Your task to perform on an android device: turn pop-ups off in chrome Image 0: 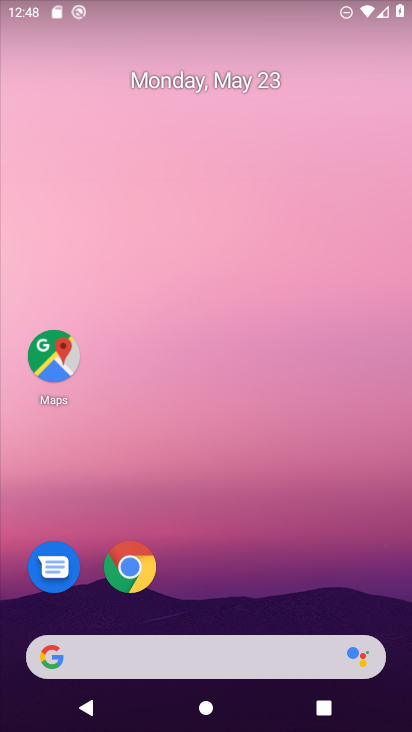
Step 0: click (121, 578)
Your task to perform on an android device: turn pop-ups off in chrome Image 1: 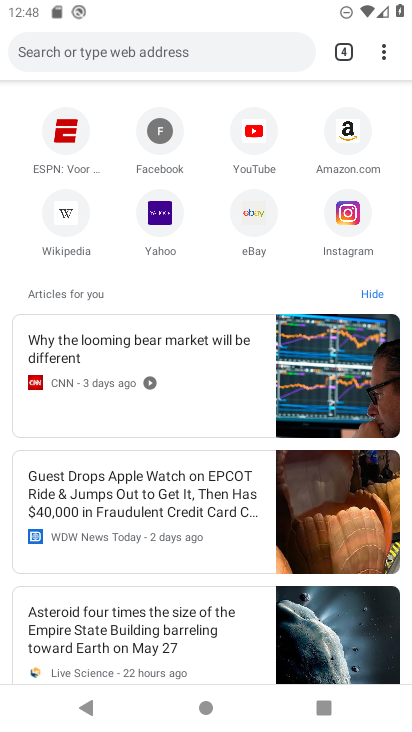
Step 1: click (396, 48)
Your task to perform on an android device: turn pop-ups off in chrome Image 2: 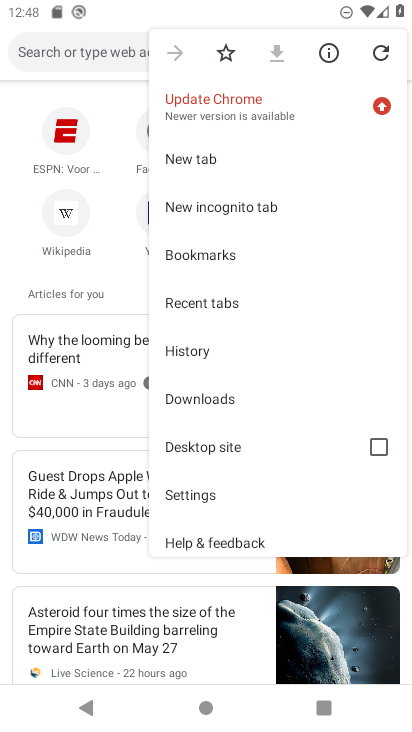
Step 2: click (204, 498)
Your task to perform on an android device: turn pop-ups off in chrome Image 3: 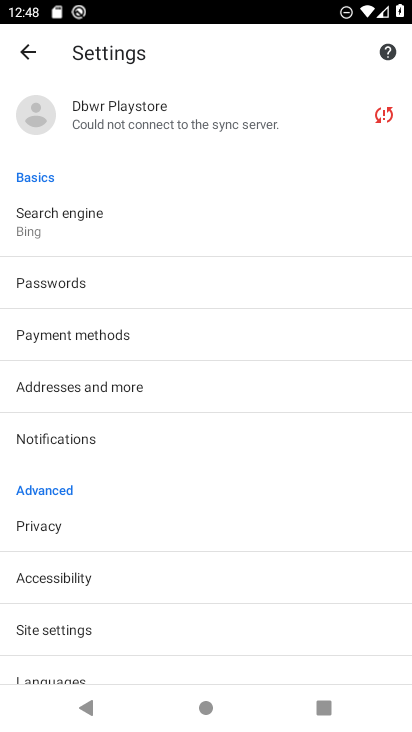
Step 3: click (119, 633)
Your task to perform on an android device: turn pop-ups off in chrome Image 4: 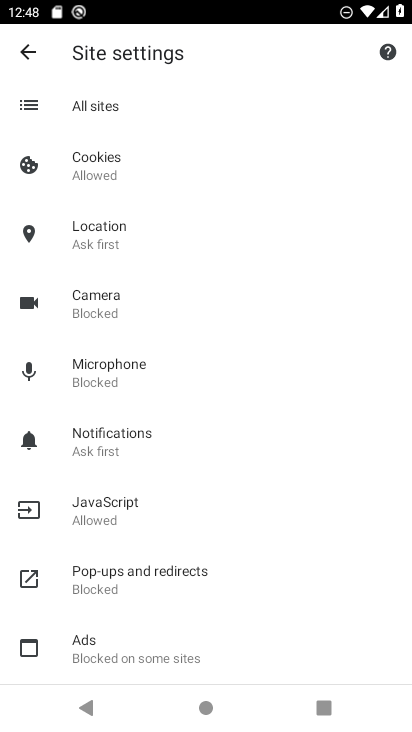
Step 4: click (149, 586)
Your task to perform on an android device: turn pop-ups off in chrome Image 5: 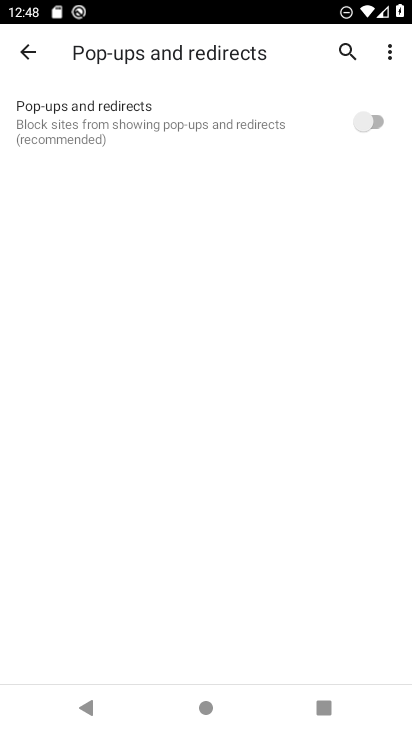
Step 5: task complete